Your task to perform on an android device: Open the stopwatch Image 0: 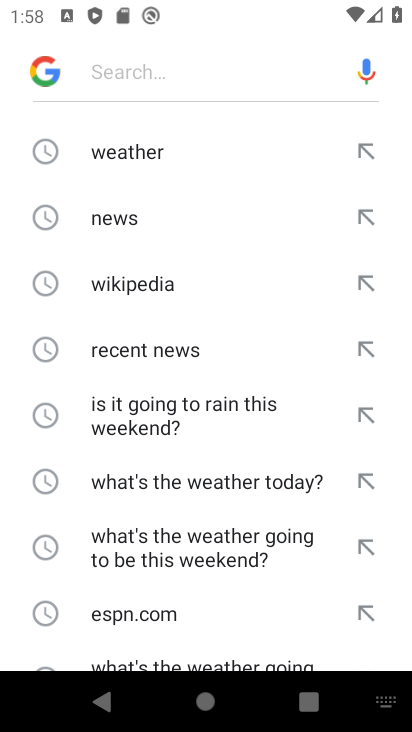
Step 0: press home button
Your task to perform on an android device: Open the stopwatch Image 1: 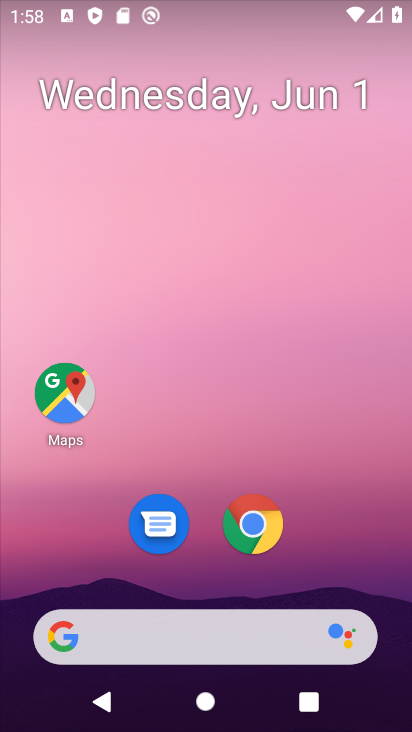
Step 1: drag from (326, 474) to (312, 9)
Your task to perform on an android device: Open the stopwatch Image 2: 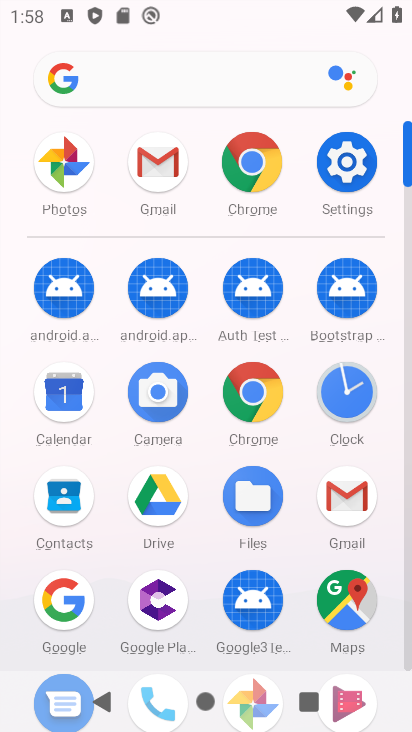
Step 2: click (328, 383)
Your task to perform on an android device: Open the stopwatch Image 3: 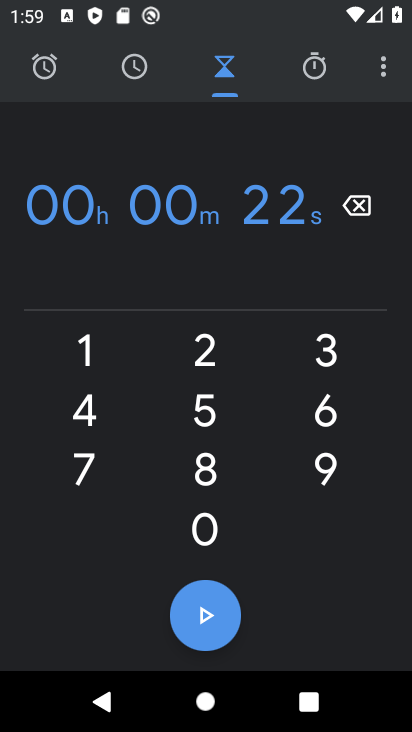
Step 3: click (317, 78)
Your task to perform on an android device: Open the stopwatch Image 4: 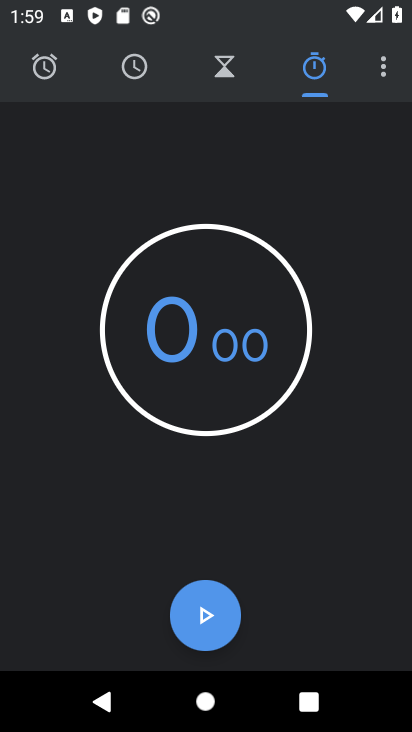
Step 4: task complete